Your task to perform on an android device: check google app version Image 0: 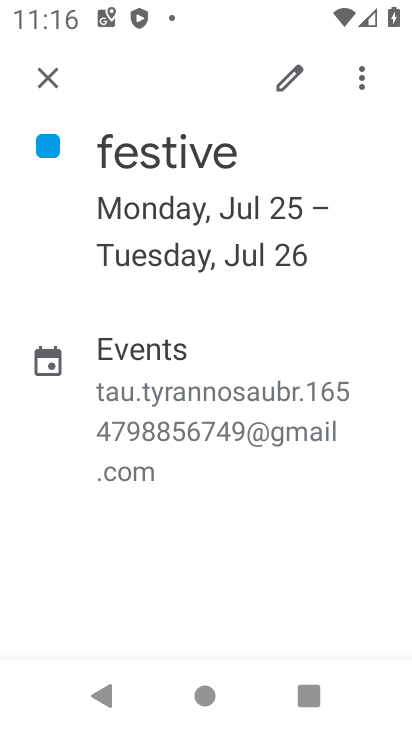
Step 0: press home button
Your task to perform on an android device: check google app version Image 1: 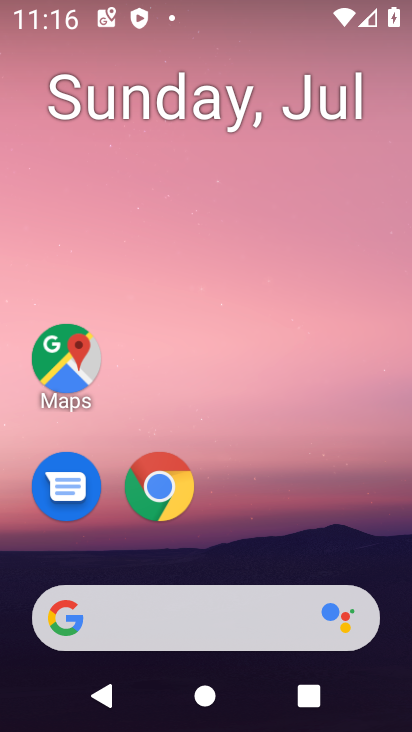
Step 1: drag from (351, 571) to (322, 19)
Your task to perform on an android device: check google app version Image 2: 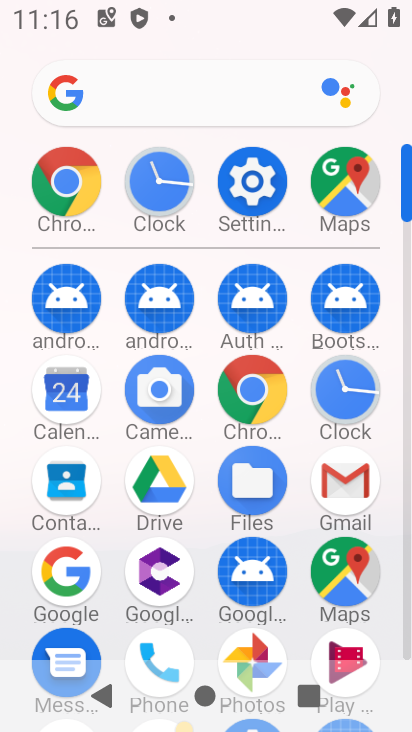
Step 2: click (70, 578)
Your task to perform on an android device: check google app version Image 3: 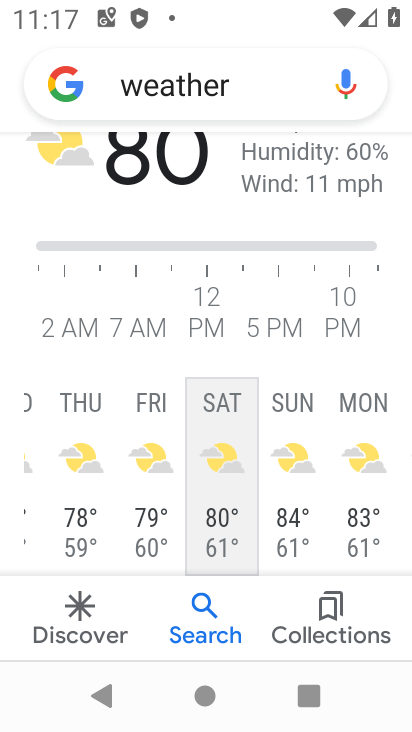
Step 3: press back button
Your task to perform on an android device: check google app version Image 4: 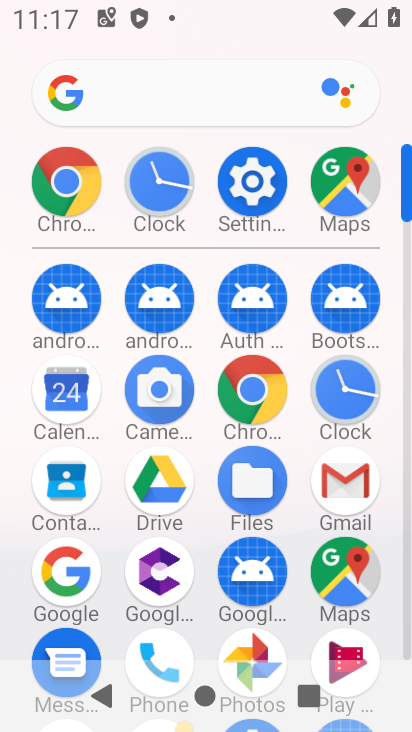
Step 4: click (59, 568)
Your task to perform on an android device: check google app version Image 5: 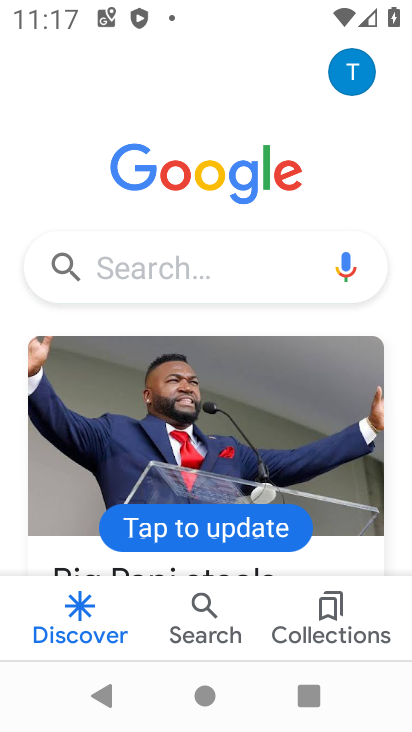
Step 5: click (353, 77)
Your task to perform on an android device: check google app version Image 6: 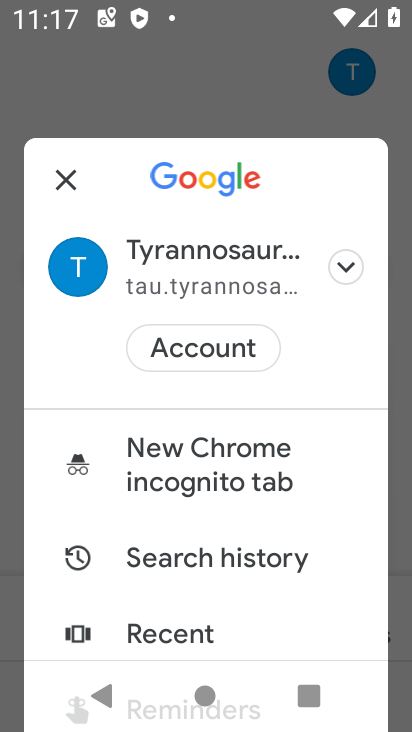
Step 6: drag from (342, 508) to (336, 404)
Your task to perform on an android device: check google app version Image 7: 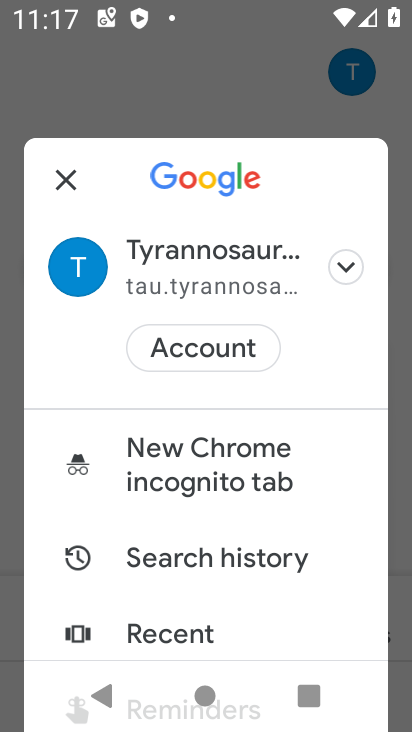
Step 7: drag from (341, 528) to (318, 194)
Your task to perform on an android device: check google app version Image 8: 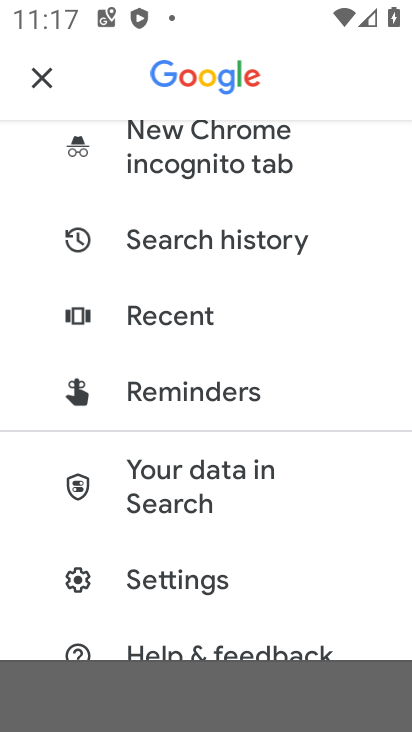
Step 8: click (255, 589)
Your task to perform on an android device: check google app version Image 9: 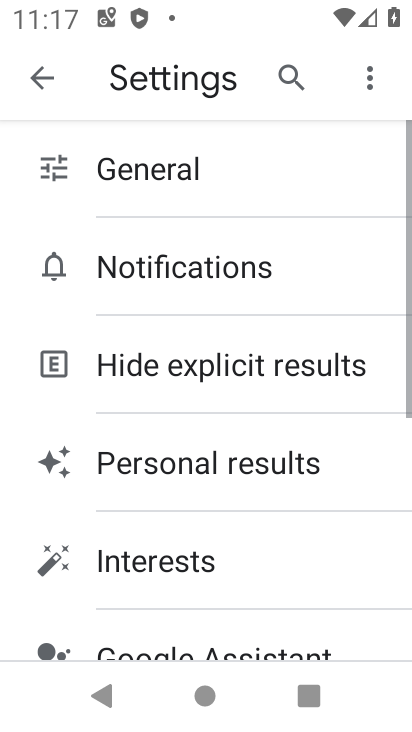
Step 9: drag from (309, 560) to (309, 421)
Your task to perform on an android device: check google app version Image 10: 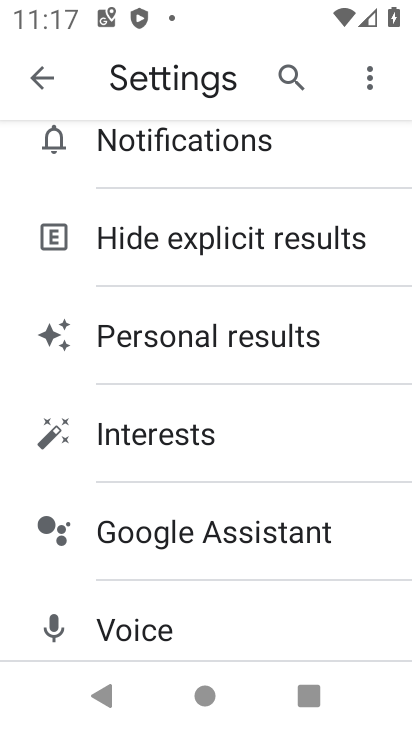
Step 10: drag from (326, 601) to (327, 299)
Your task to perform on an android device: check google app version Image 11: 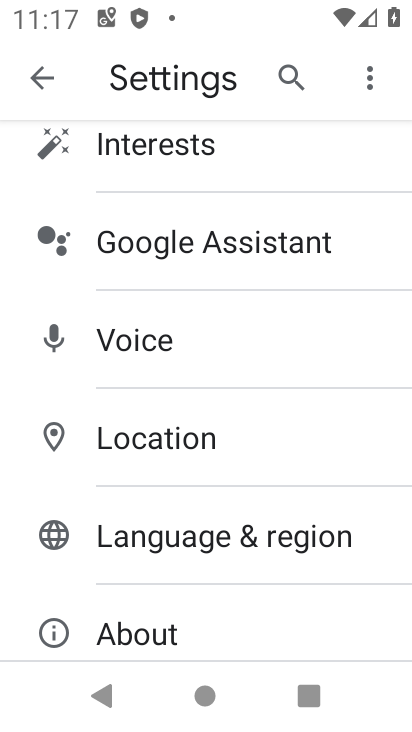
Step 11: click (323, 623)
Your task to perform on an android device: check google app version Image 12: 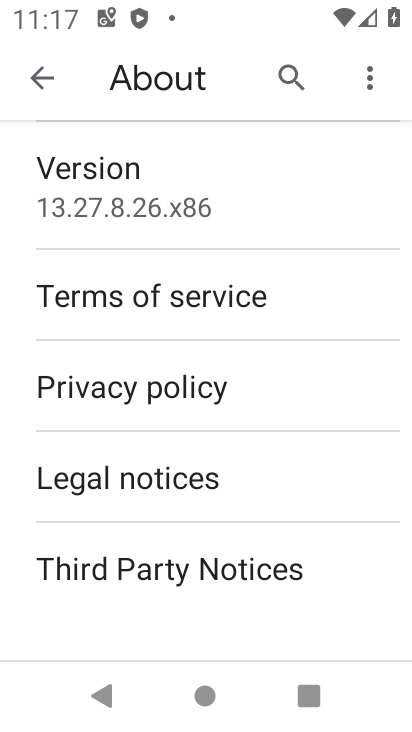
Step 12: task complete